Your task to perform on an android device: Open calendar and show me the fourth week of next month Image 0: 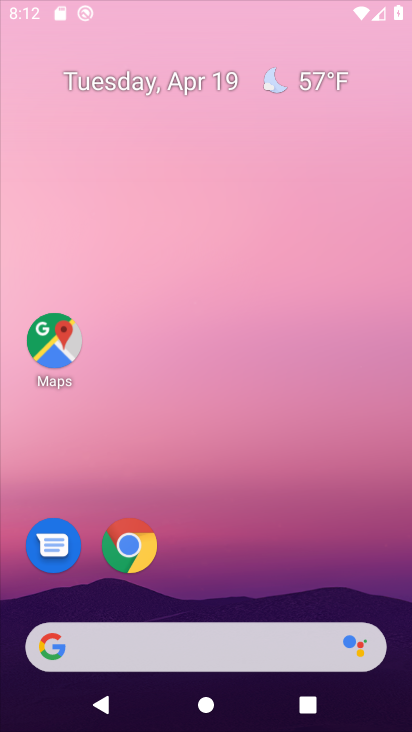
Step 0: click (310, 61)
Your task to perform on an android device: Open calendar and show me the fourth week of next month Image 1: 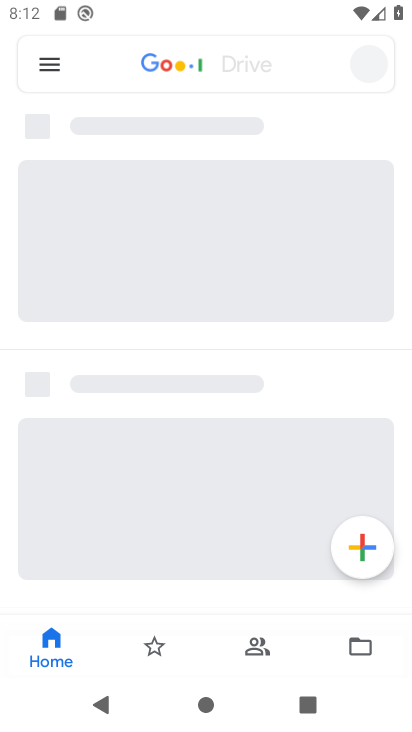
Step 1: press home button
Your task to perform on an android device: Open calendar and show me the fourth week of next month Image 2: 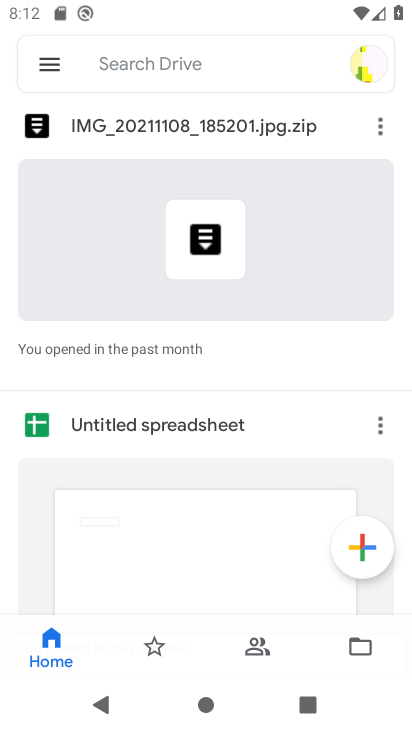
Step 2: press home button
Your task to perform on an android device: Open calendar and show me the fourth week of next month Image 3: 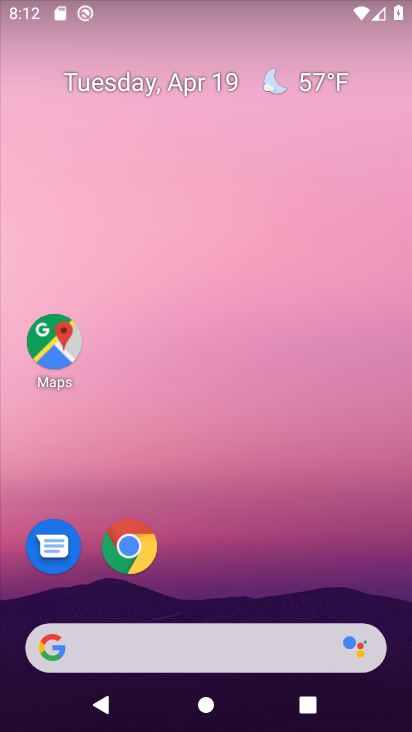
Step 3: drag from (192, 545) to (268, 8)
Your task to perform on an android device: Open calendar and show me the fourth week of next month Image 4: 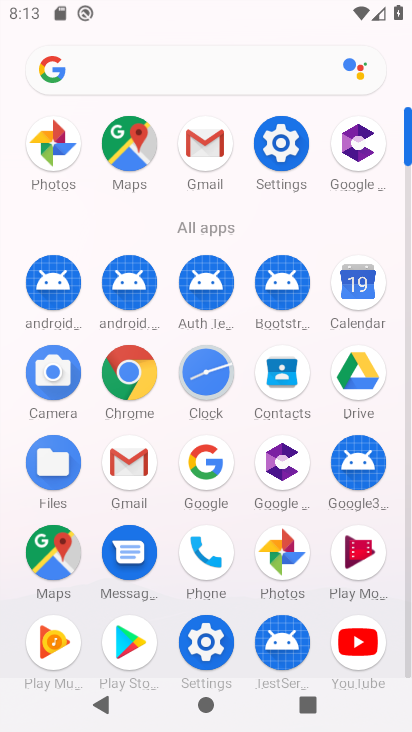
Step 4: click (360, 296)
Your task to perform on an android device: Open calendar and show me the fourth week of next month Image 5: 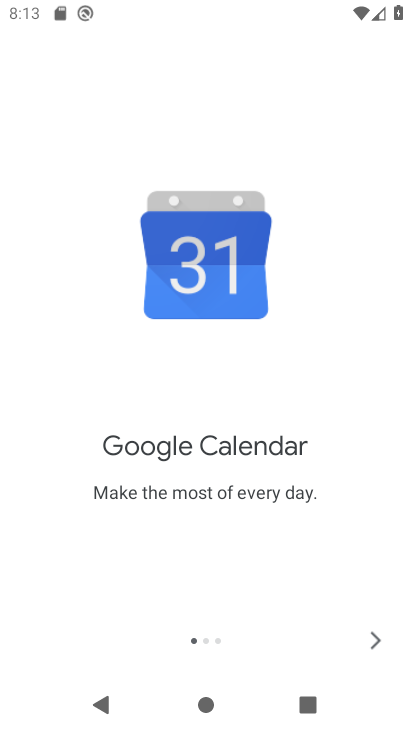
Step 5: click (358, 627)
Your task to perform on an android device: Open calendar and show me the fourth week of next month Image 6: 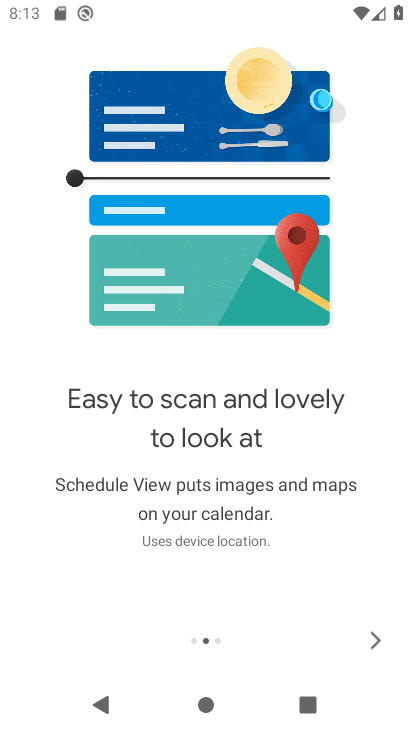
Step 6: click (376, 633)
Your task to perform on an android device: Open calendar and show me the fourth week of next month Image 7: 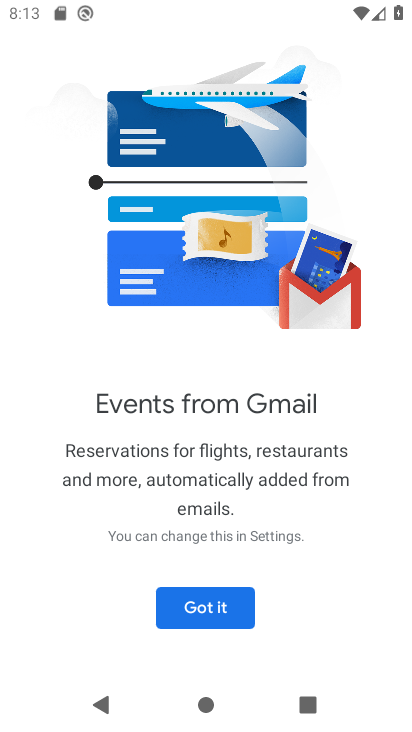
Step 7: click (195, 592)
Your task to perform on an android device: Open calendar and show me the fourth week of next month Image 8: 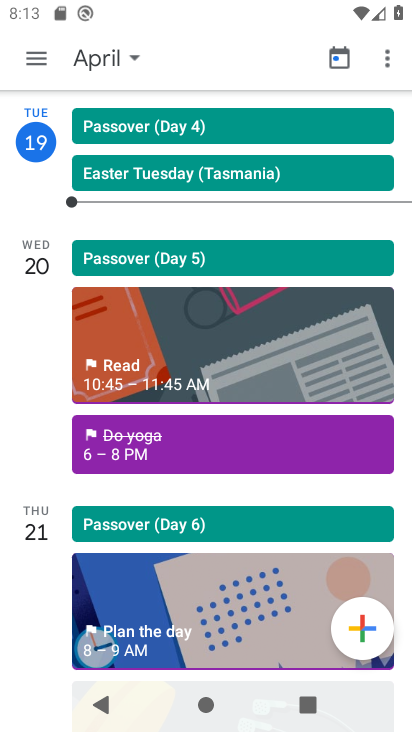
Step 8: click (118, 52)
Your task to perform on an android device: Open calendar and show me the fourth week of next month Image 9: 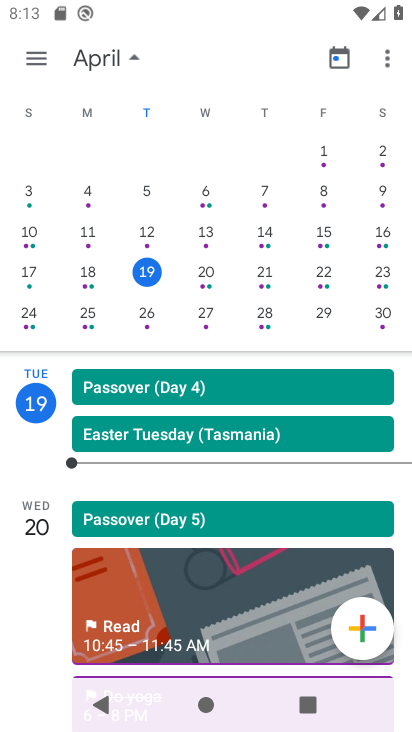
Step 9: drag from (110, 260) to (5, 222)
Your task to perform on an android device: Open calendar and show me the fourth week of next month Image 10: 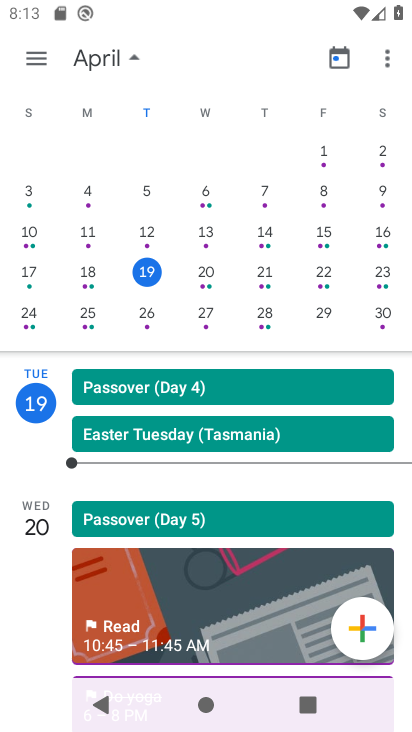
Step 10: drag from (373, 233) to (5, 305)
Your task to perform on an android device: Open calendar and show me the fourth week of next month Image 11: 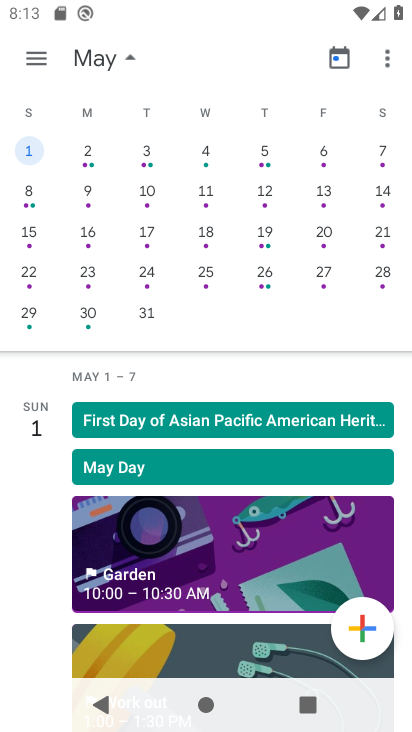
Step 11: drag from (360, 257) to (0, 214)
Your task to perform on an android device: Open calendar and show me the fourth week of next month Image 12: 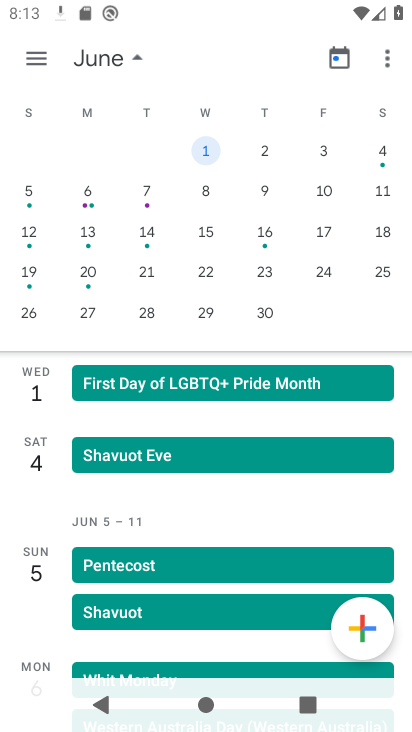
Step 12: click (35, 57)
Your task to perform on an android device: Open calendar and show me the fourth week of next month Image 13: 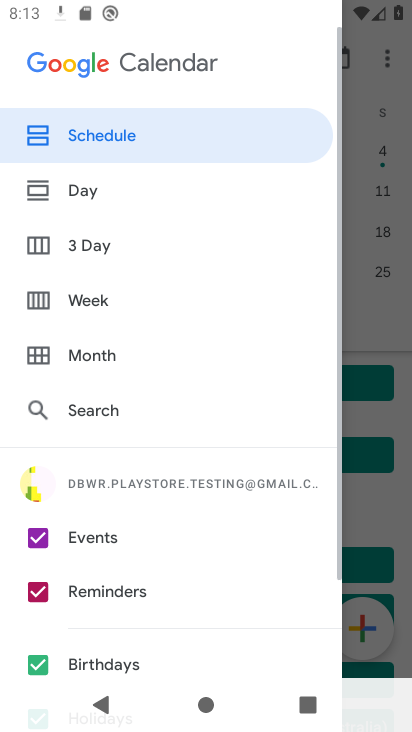
Step 13: click (90, 303)
Your task to perform on an android device: Open calendar and show me the fourth week of next month Image 14: 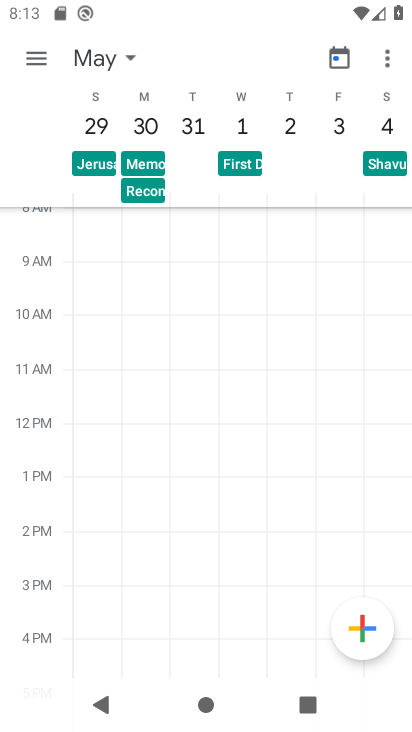
Step 14: task complete